Your task to perform on an android device: Clear all items from cart on ebay.com. Add usb-c to usb-b to the cart on ebay.com Image 0: 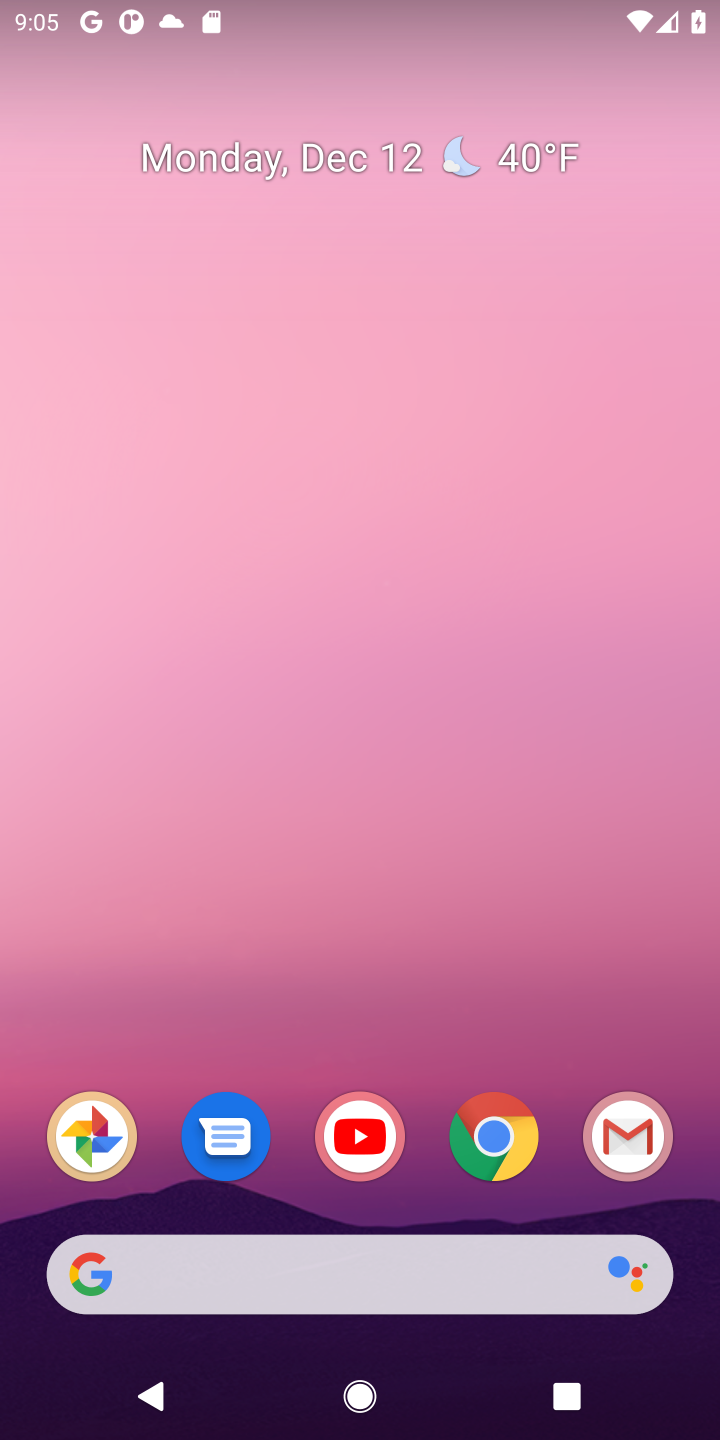
Step 0: click (505, 1143)
Your task to perform on an android device: Clear all items from cart on ebay.com. Add usb-c to usb-b to the cart on ebay.com Image 1: 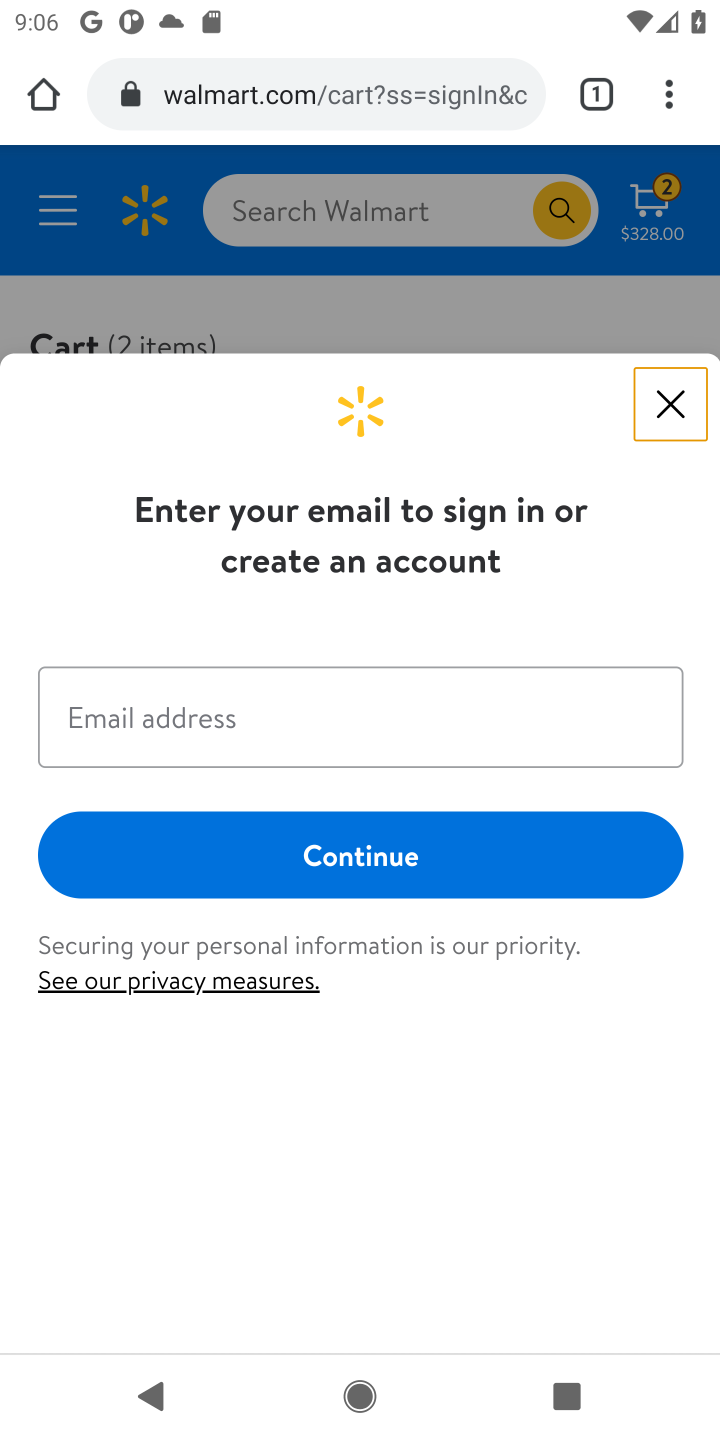
Step 1: click (281, 89)
Your task to perform on an android device: Clear all items from cart on ebay.com. Add usb-c to usb-b to the cart on ebay.com Image 2: 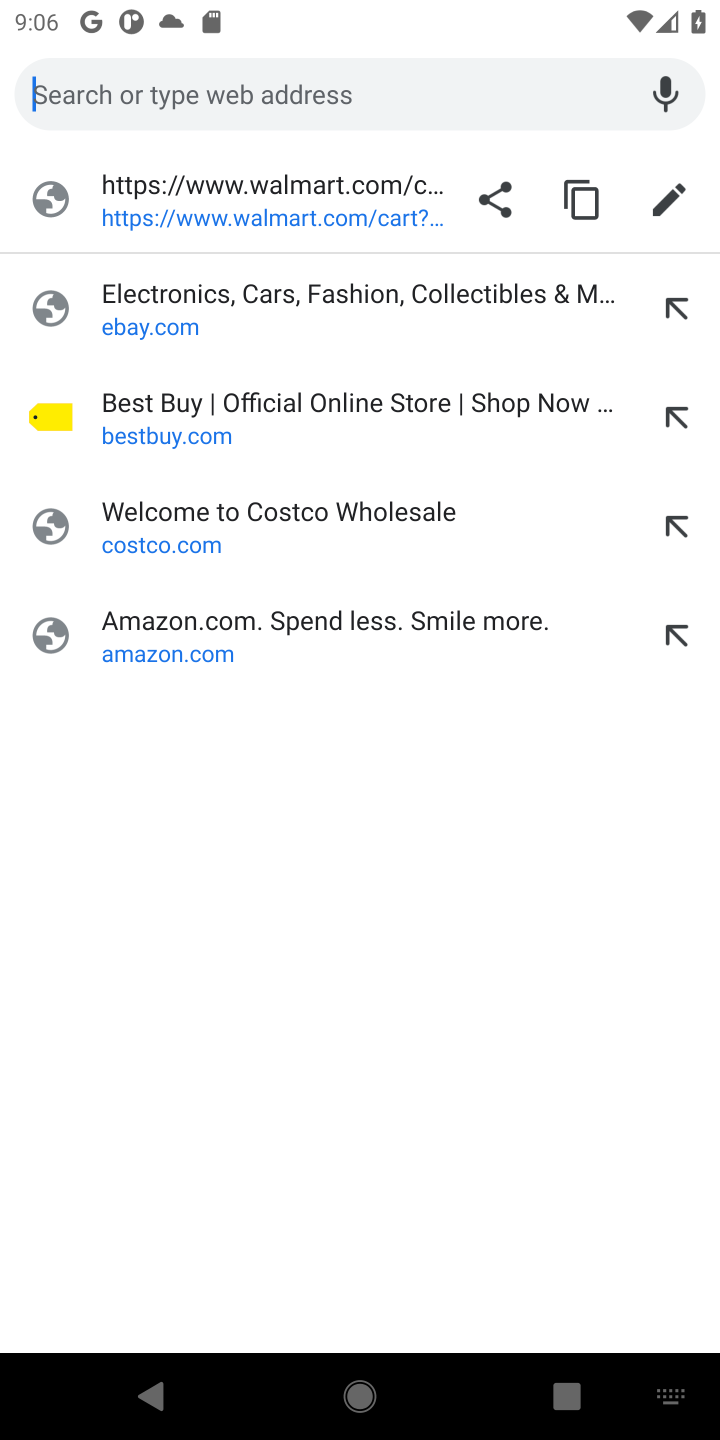
Step 2: click (151, 312)
Your task to perform on an android device: Clear all items from cart on ebay.com. Add usb-c to usb-b to the cart on ebay.com Image 3: 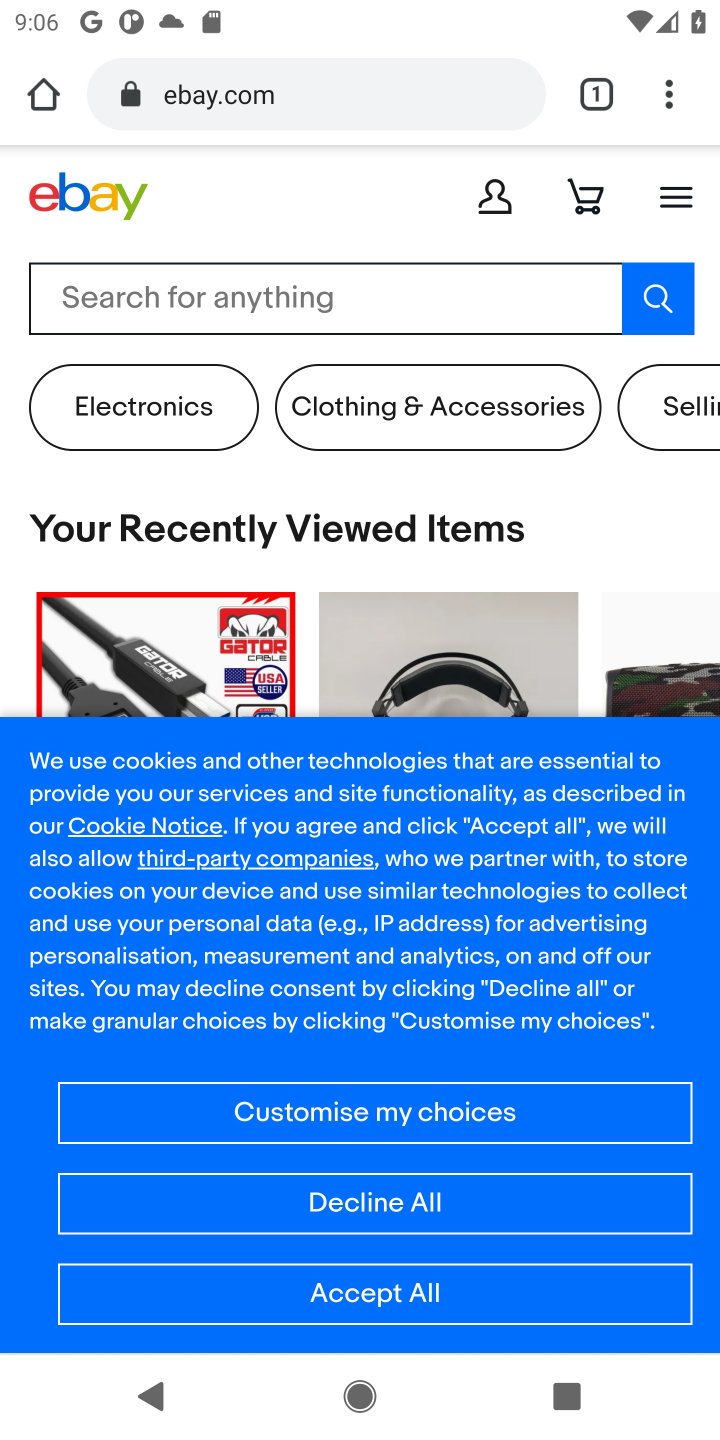
Step 3: click (586, 204)
Your task to perform on an android device: Clear all items from cart on ebay.com. Add usb-c to usb-b to the cart on ebay.com Image 4: 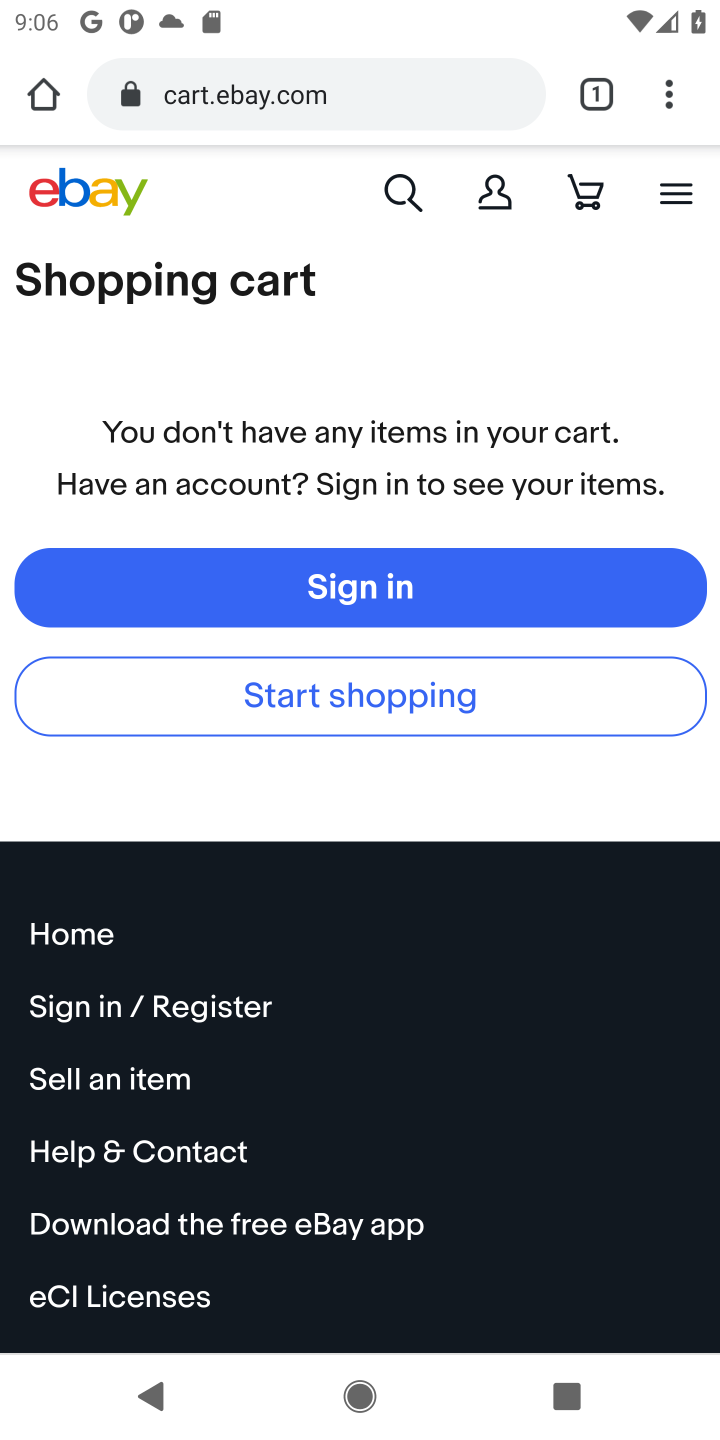
Step 4: click (406, 195)
Your task to perform on an android device: Clear all items from cart on ebay.com. Add usb-c to usb-b to the cart on ebay.com Image 5: 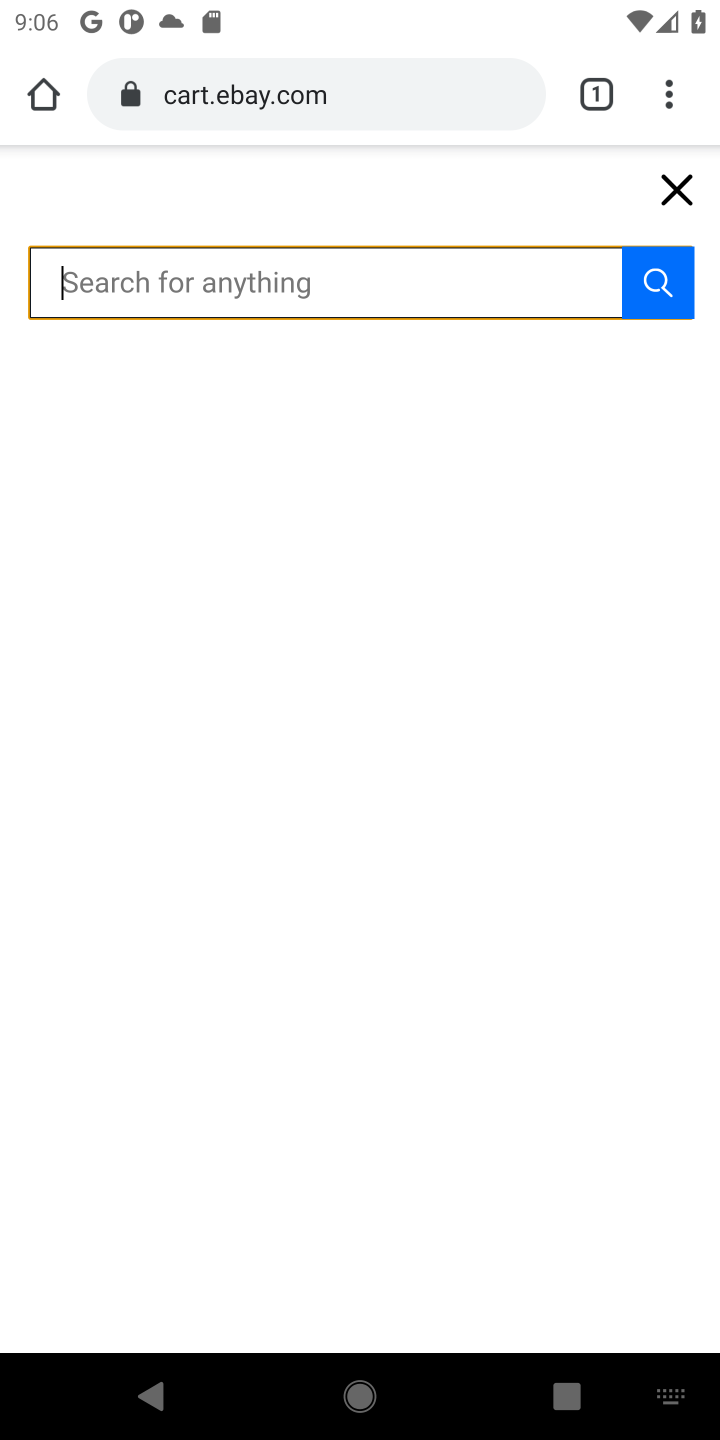
Step 5: type "usb-c to usb-b"
Your task to perform on an android device: Clear all items from cart on ebay.com. Add usb-c to usb-b to the cart on ebay.com Image 6: 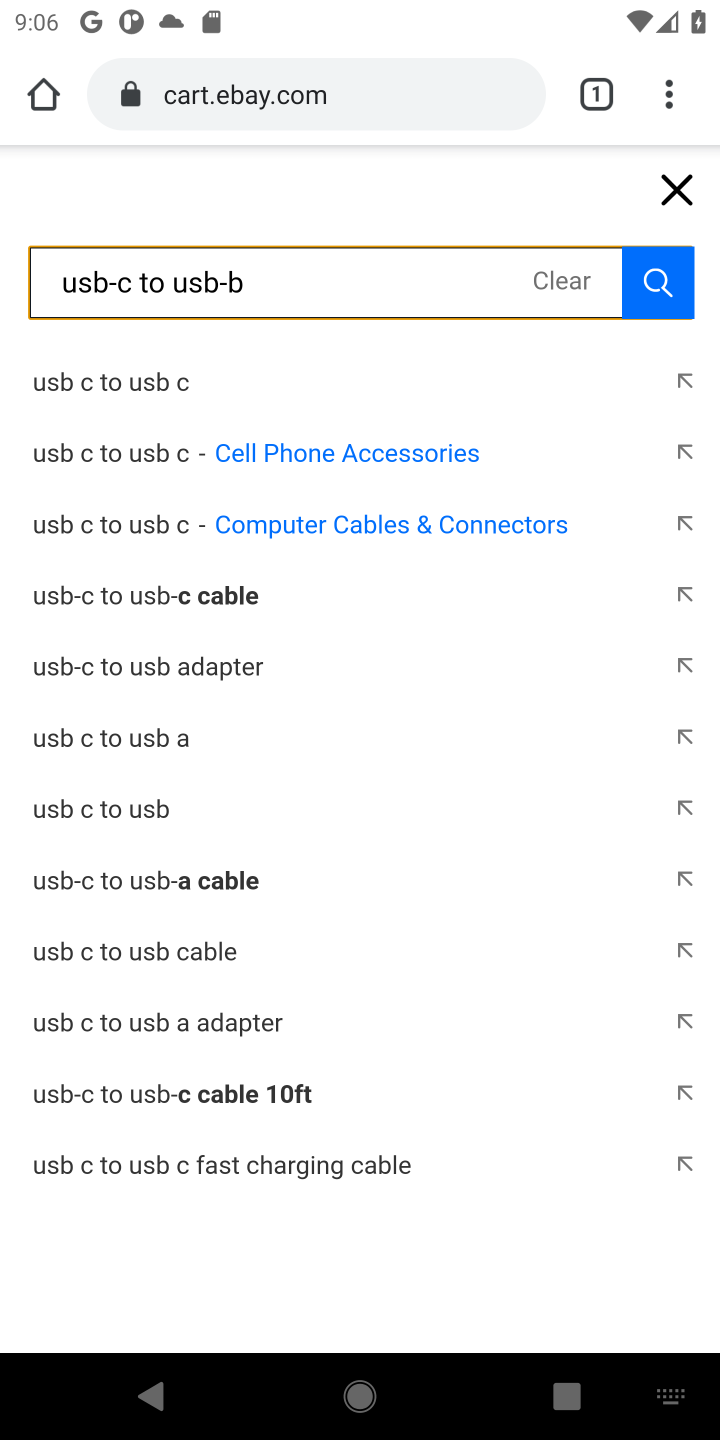
Step 6: click (665, 302)
Your task to perform on an android device: Clear all items from cart on ebay.com. Add usb-c to usb-b to the cart on ebay.com Image 7: 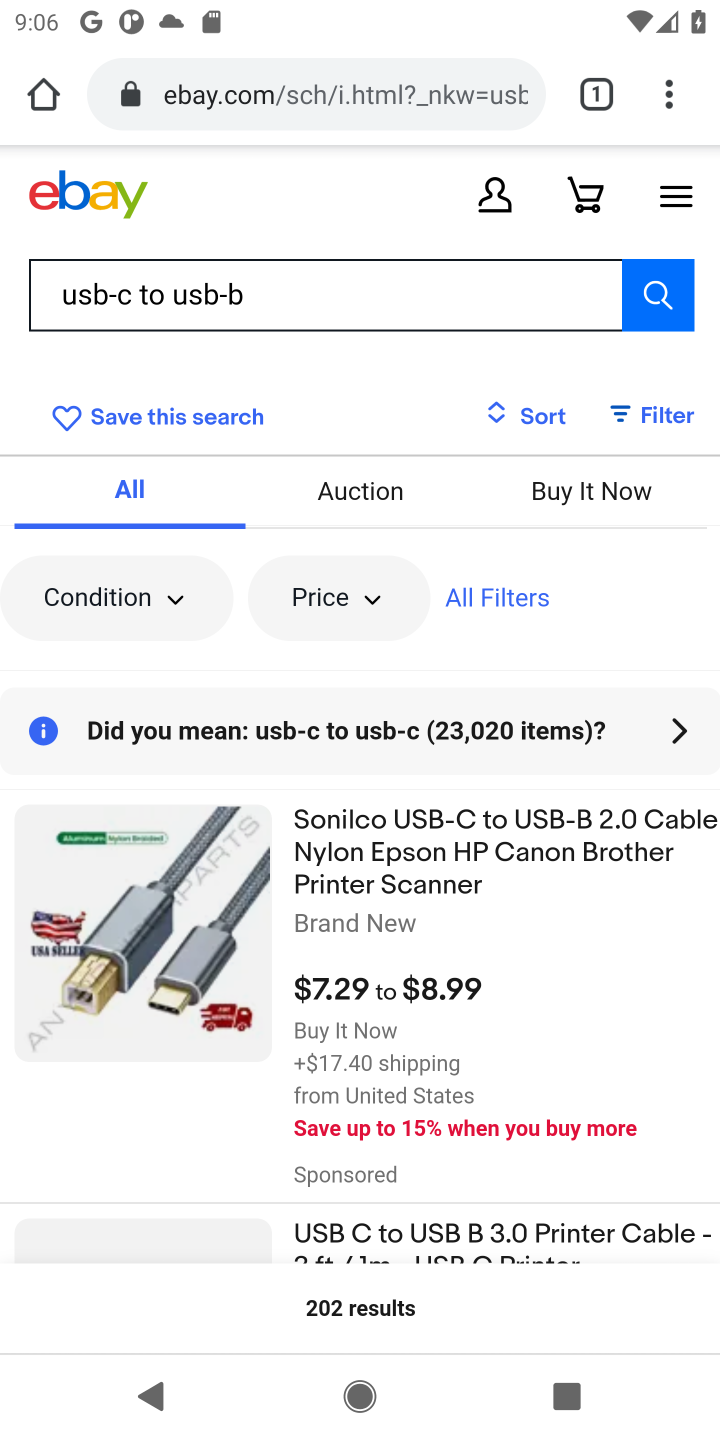
Step 7: click (384, 877)
Your task to perform on an android device: Clear all items from cart on ebay.com. Add usb-c to usb-b to the cart on ebay.com Image 8: 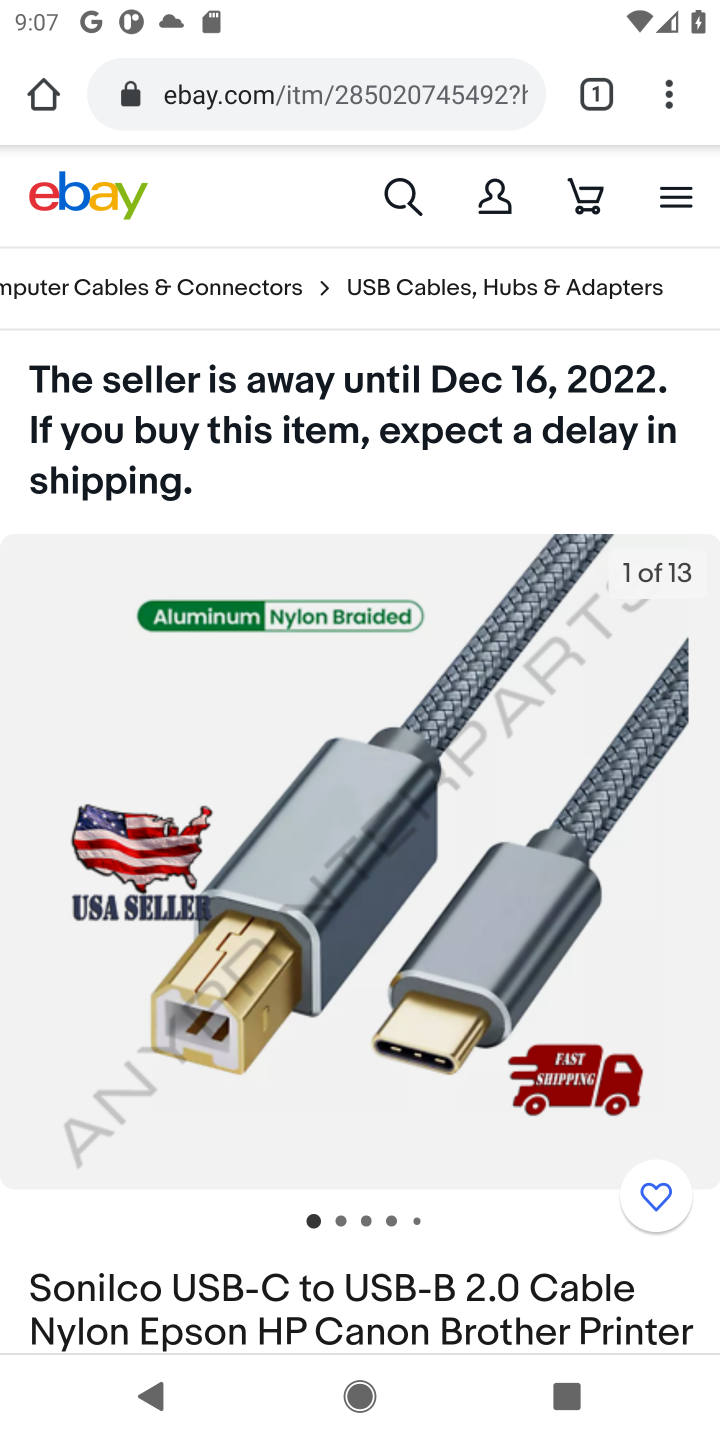
Step 8: drag from (325, 1072) to (370, 341)
Your task to perform on an android device: Clear all items from cart on ebay.com. Add usb-c to usb-b to the cart on ebay.com Image 9: 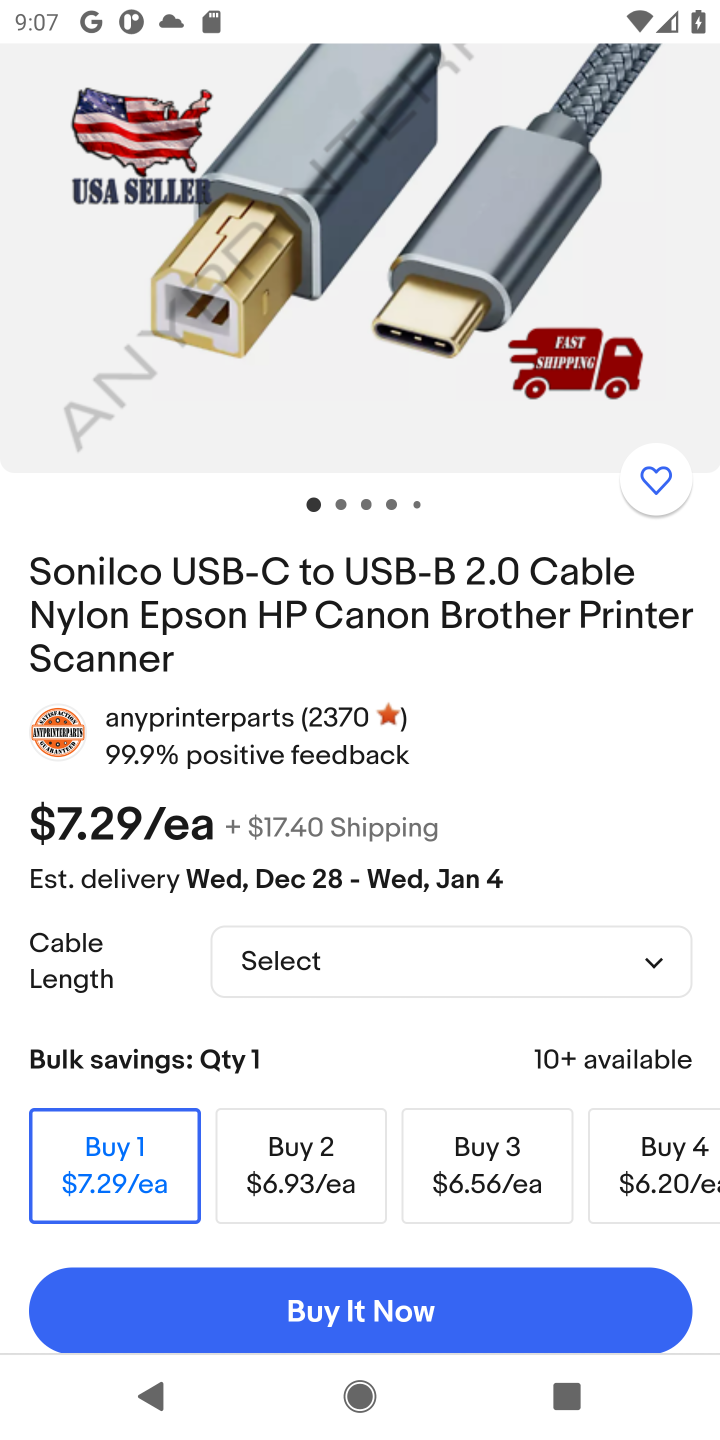
Step 9: drag from (279, 842) to (299, 393)
Your task to perform on an android device: Clear all items from cart on ebay.com. Add usb-c to usb-b to the cart on ebay.com Image 10: 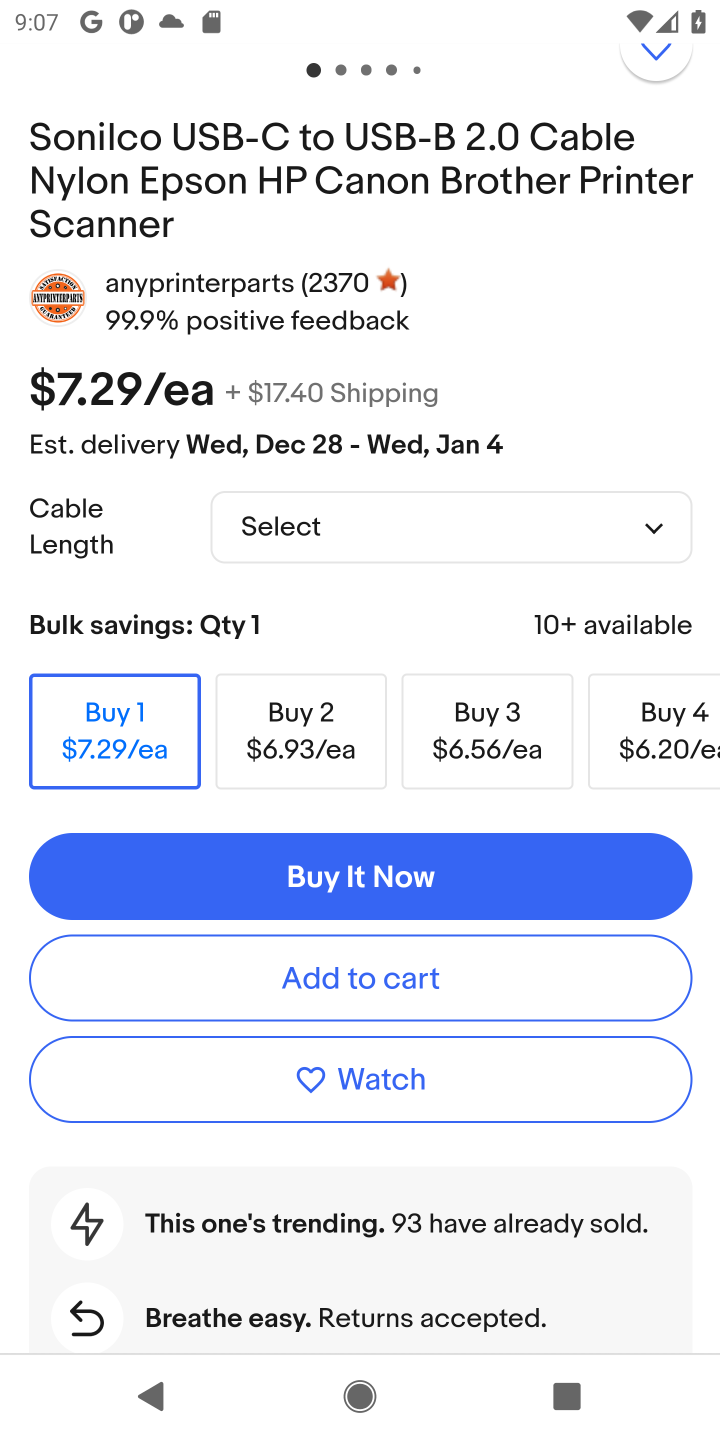
Step 10: click (305, 970)
Your task to perform on an android device: Clear all items from cart on ebay.com. Add usb-c to usb-b to the cart on ebay.com Image 11: 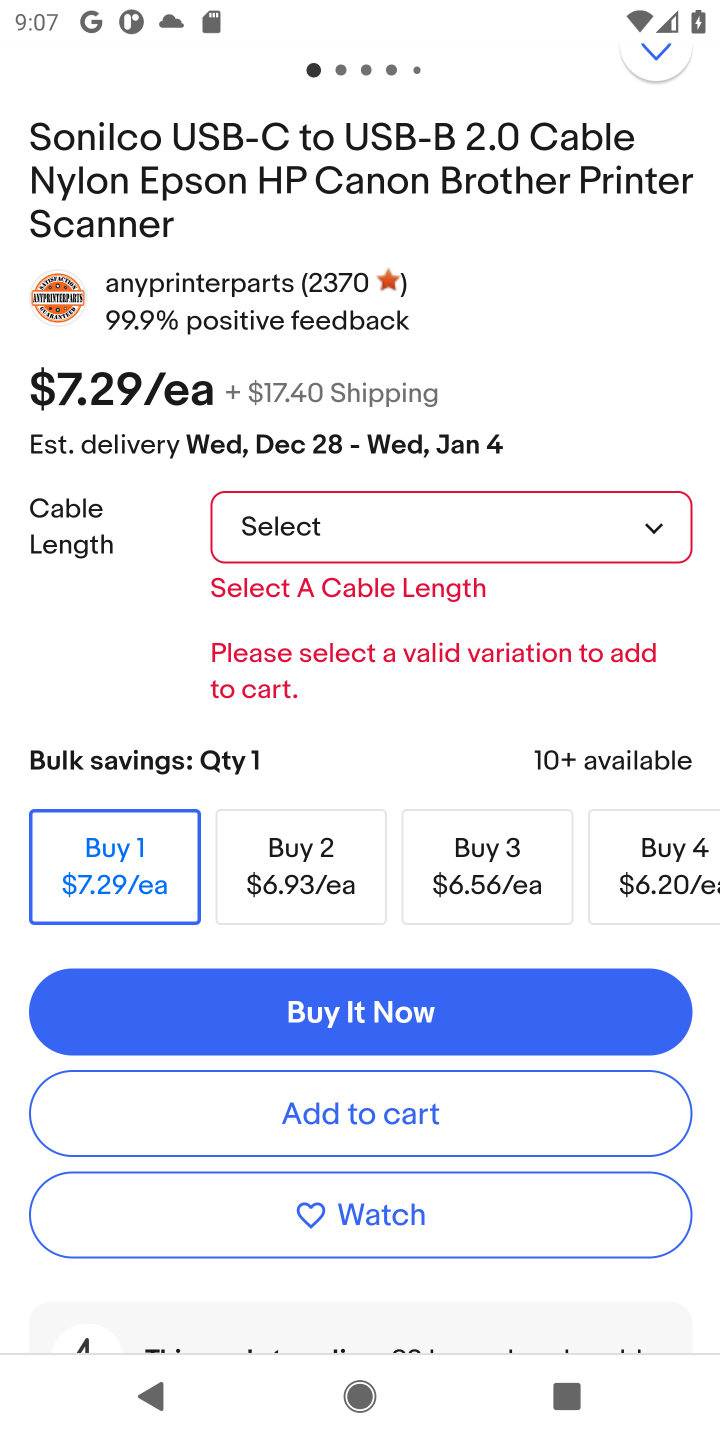
Step 11: click (655, 534)
Your task to perform on an android device: Clear all items from cart on ebay.com. Add usb-c to usb-b to the cart on ebay.com Image 12: 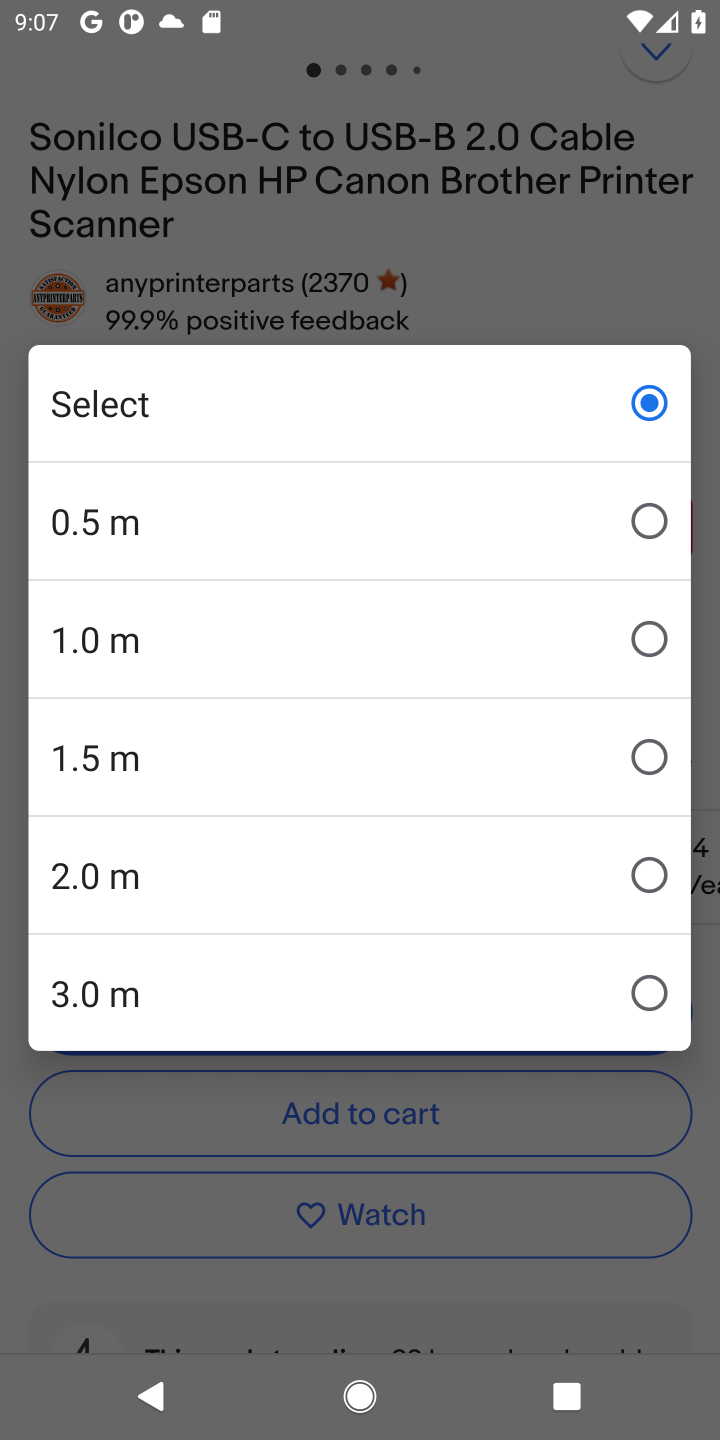
Step 12: click (155, 513)
Your task to perform on an android device: Clear all items from cart on ebay.com. Add usb-c to usb-b to the cart on ebay.com Image 13: 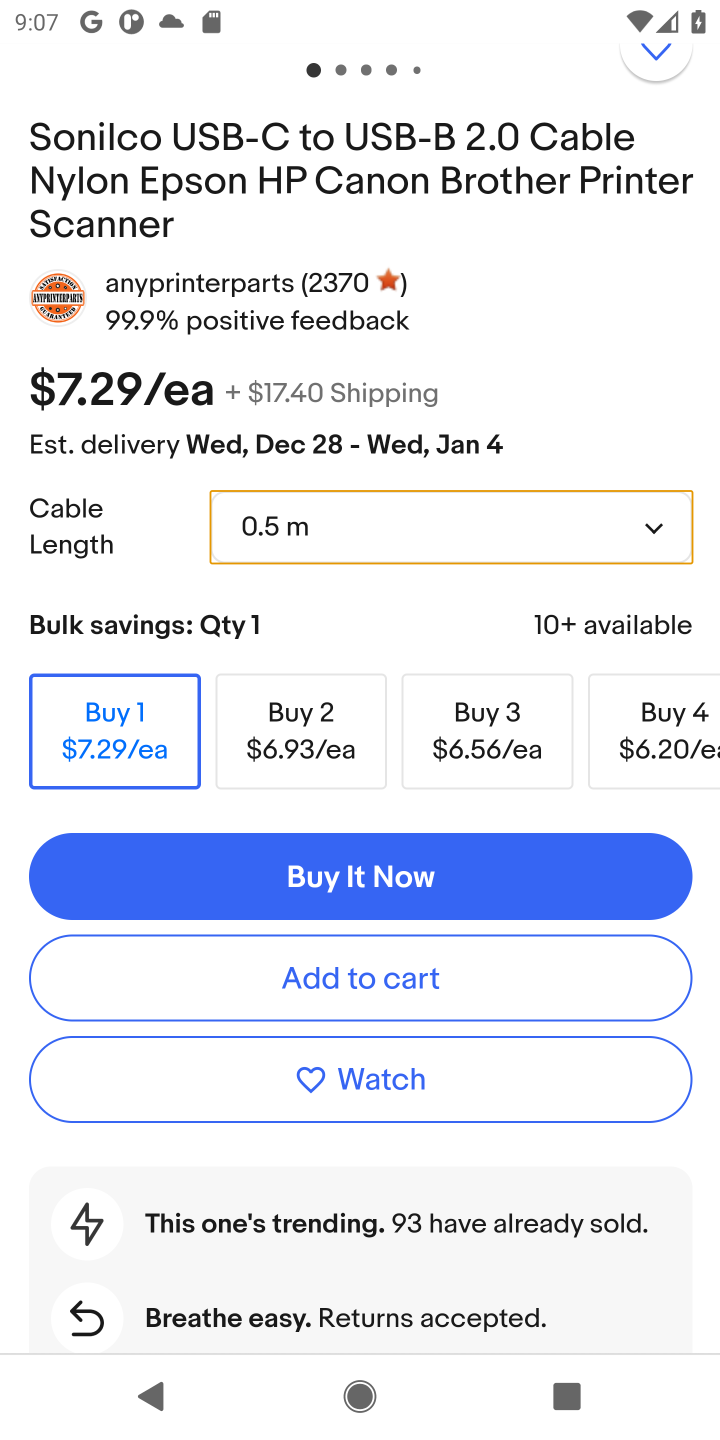
Step 13: click (433, 975)
Your task to perform on an android device: Clear all items from cart on ebay.com. Add usb-c to usb-b to the cart on ebay.com Image 14: 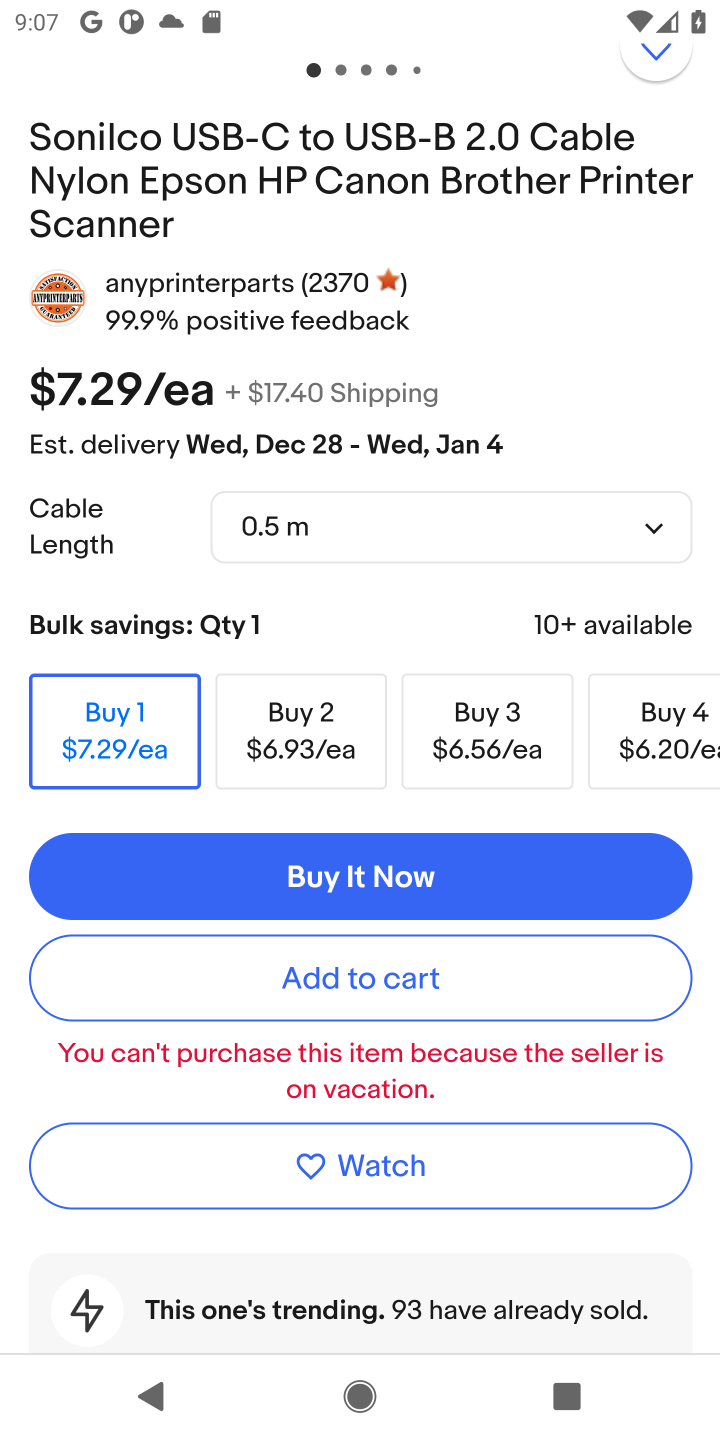
Step 14: task complete